Your task to perform on an android device: turn off priority inbox in the gmail app Image 0: 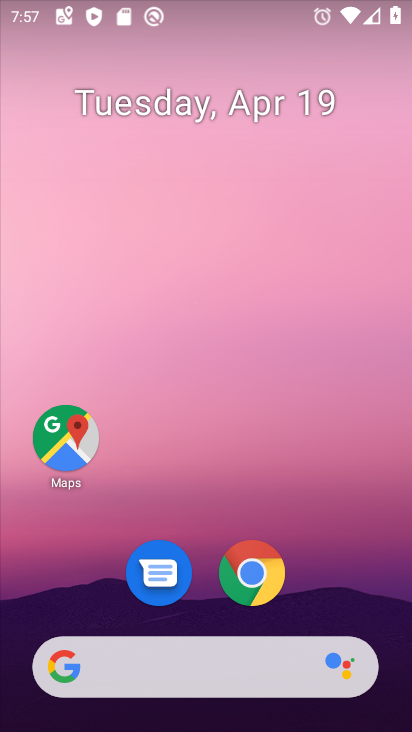
Step 0: drag from (237, 710) to (233, 0)
Your task to perform on an android device: turn off priority inbox in the gmail app Image 1: 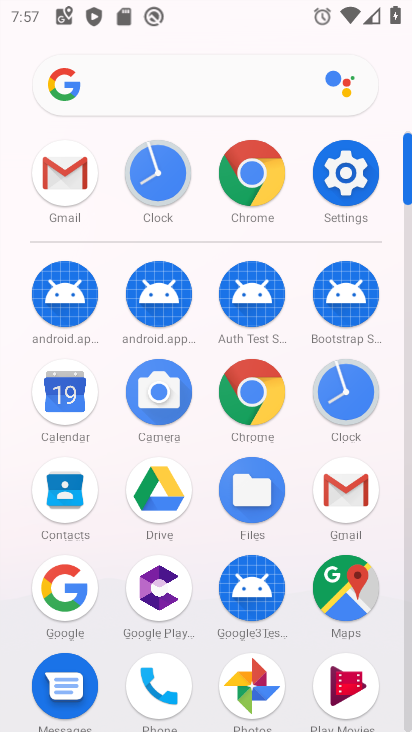
Step 1: click (67, 169)
Your task to perform on an android device: turn off priority inbox in the gmail app Image 2: 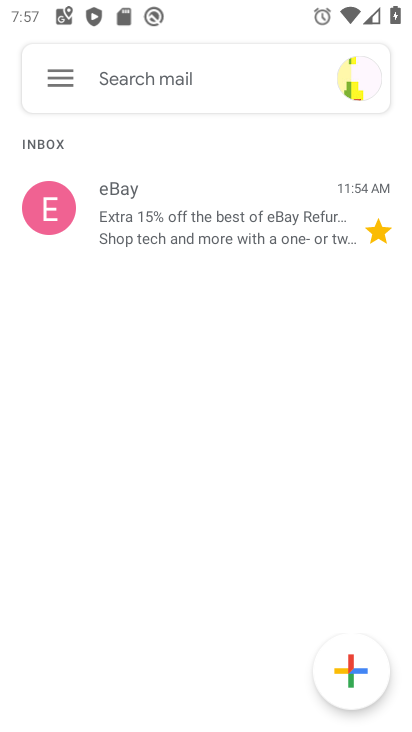
Step 2: click (55, 69)
Your task to perform on an android device: turn off priority inbox in the gmail app Image 3: 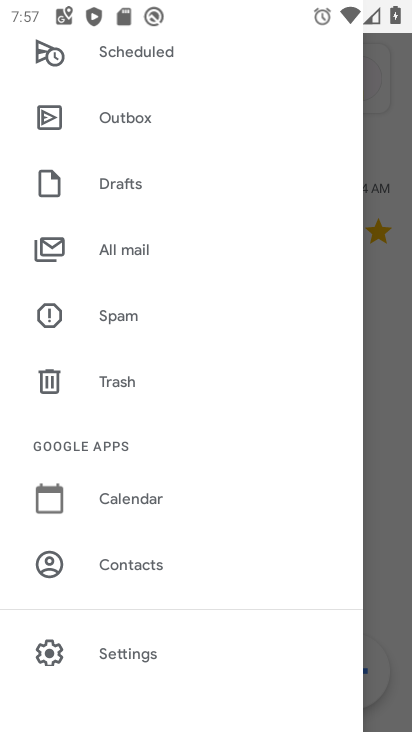
Step 3: click (106, 656)
Your task to perform on an android device: turn off priority inbox in the gmail app Image 4: 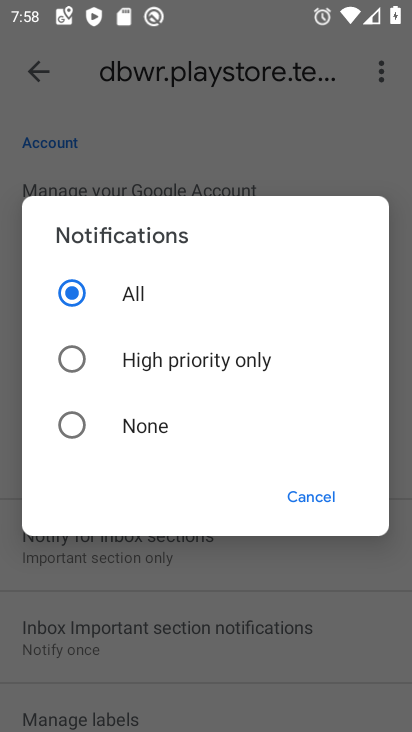
Step 4: click (315, 496)
Your task to perform on an android device: turn off priority inbox in the gmail app Image 5: 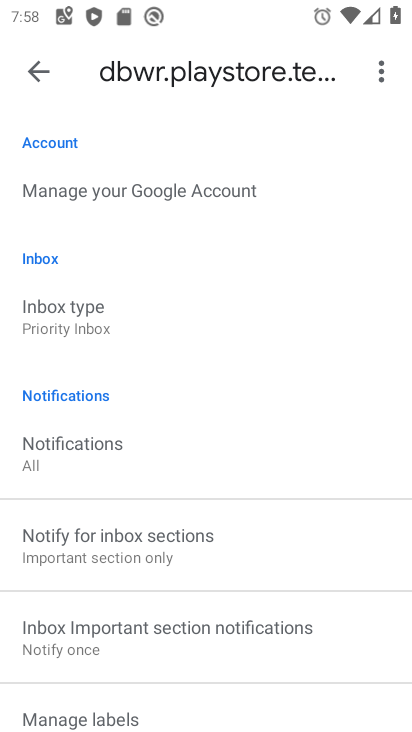
Step 5: click (57, 321)
Your task to perform on an android device: turn off priority inbox in the gmail app Image 6: 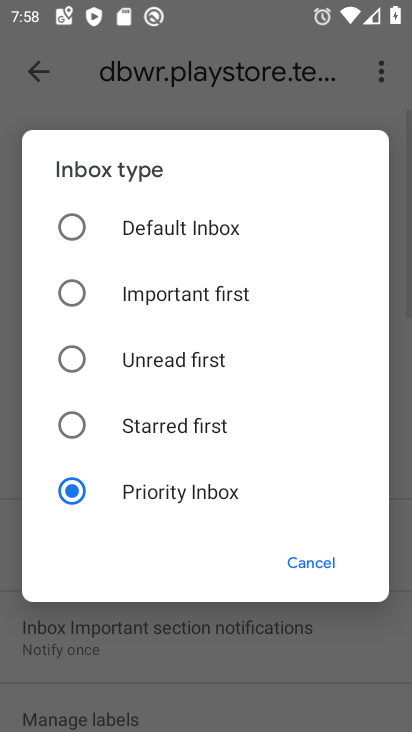
Step 6: click (116, 233)
Your task to perform on an android device: turn off priority inbox in the gmail app Image 7: 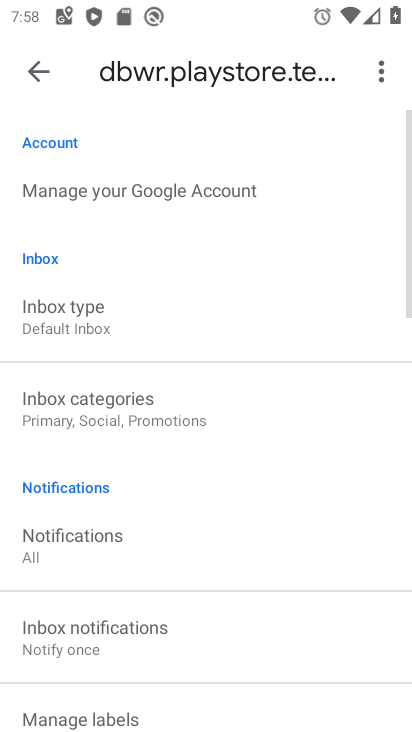
Step 7: task complete